Your task to perform on an android device: toggle data saver in the chrome app Image 0: 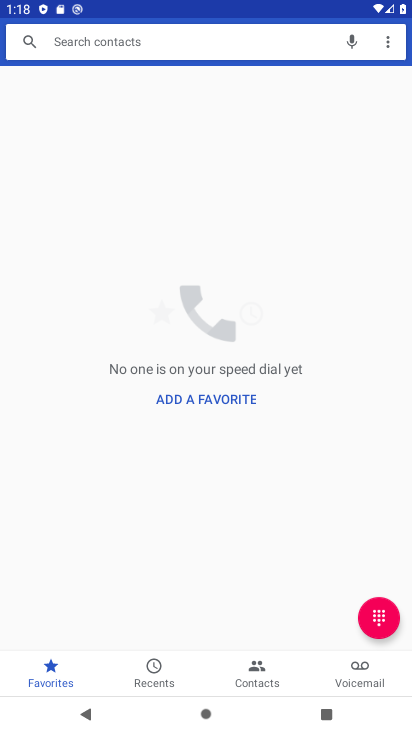
Step 0: press home button
Your task to perform on an android device: toggle data saver in the chrome app Image 1: 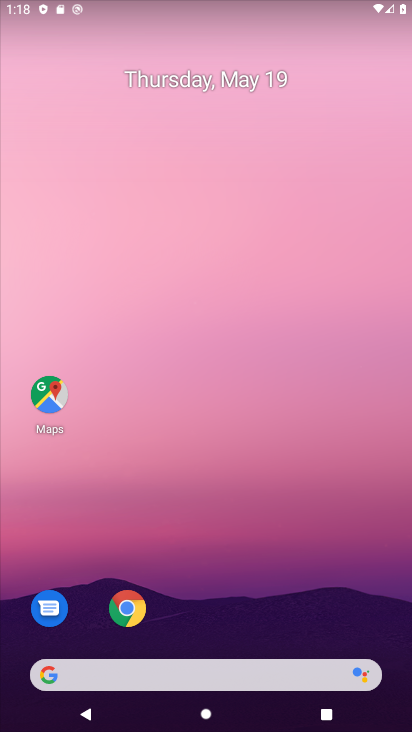
Step 1: click (122, 621)
Your task to perform on an android device: toggle data saver in the chrome app Image 2: 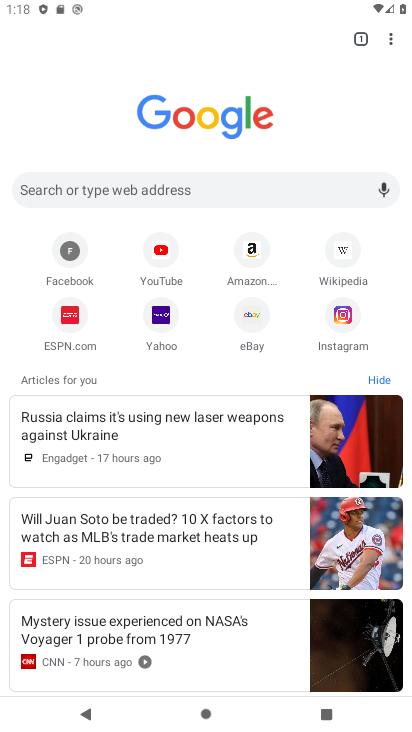
Step 2: click (393, 41)
Your task to perform on an android device: toggle data saver in the chrome app Image 3: 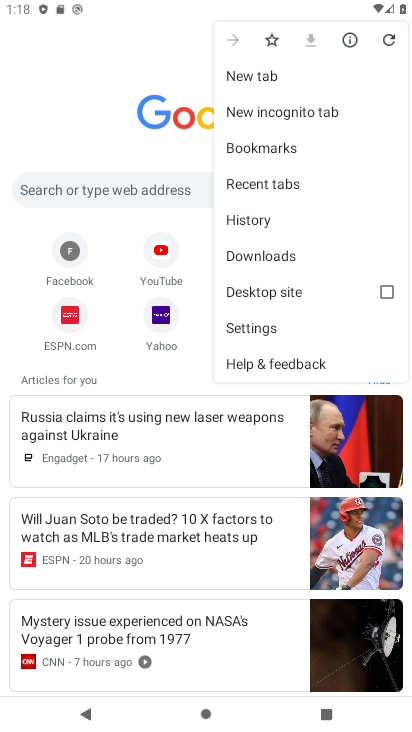
Step 3: click (273, 319)
Your task to perform on an android device: toggle data saver in the chrome app Image 4: 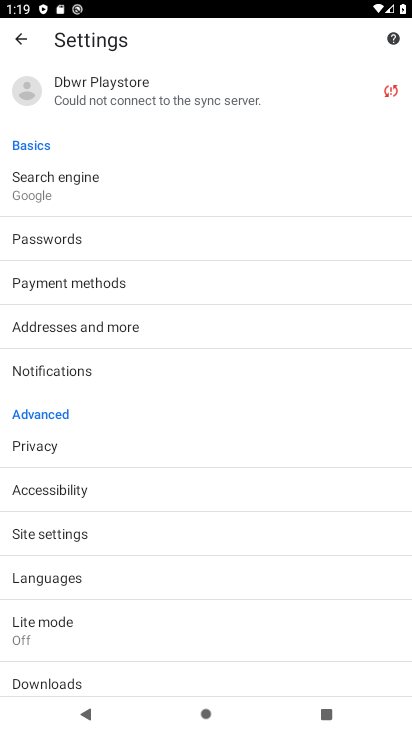
Step 4: click (97, 640)
Your task to perform on an android device: toggle data saver in the chrome app Image 5: 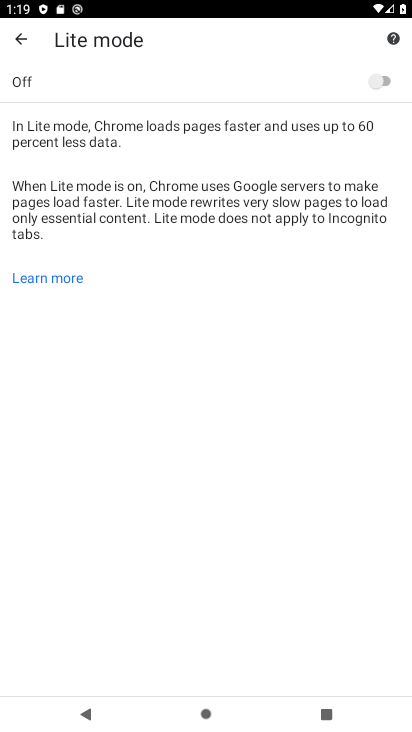
Step 5: click (386, 76)
Your task to perform on an android device: toggle data saver in the chrome app Image 6: 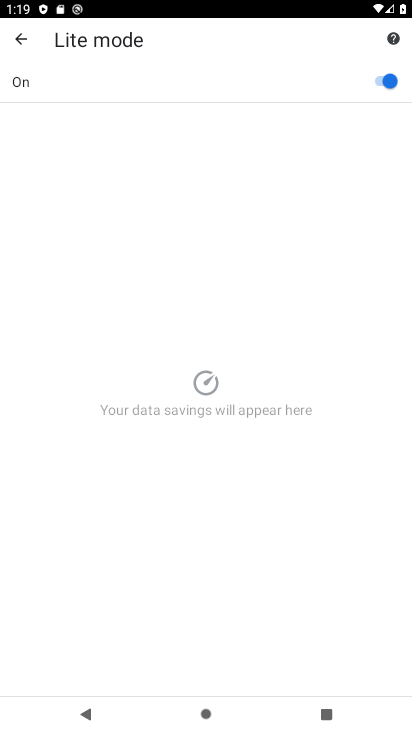
Step 6: task complete